Your task to perform on an android device: toggle improve location accuracy Image 0: 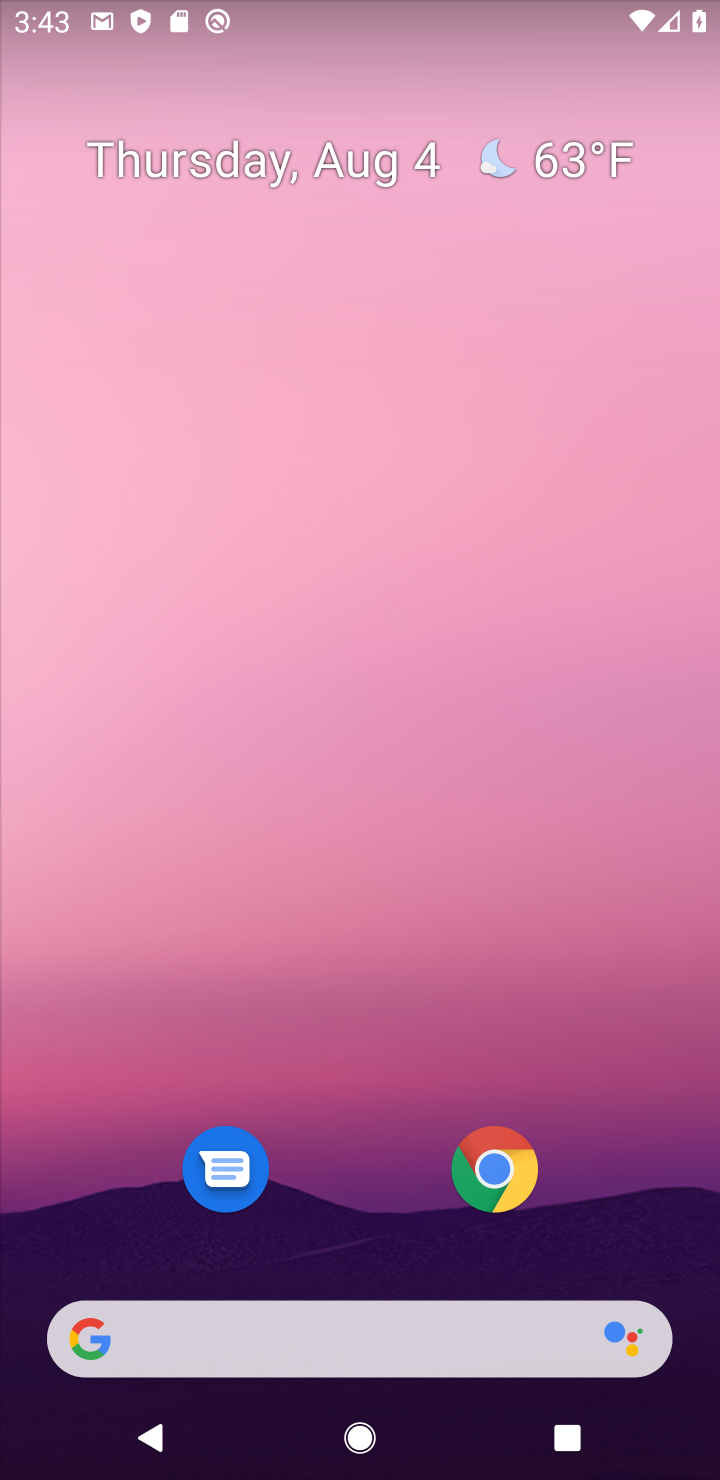
Step 0: drag from (390, 1224) to (491, 293)
Your task to perform on an android device: toggle improve location accuracy Image 1: 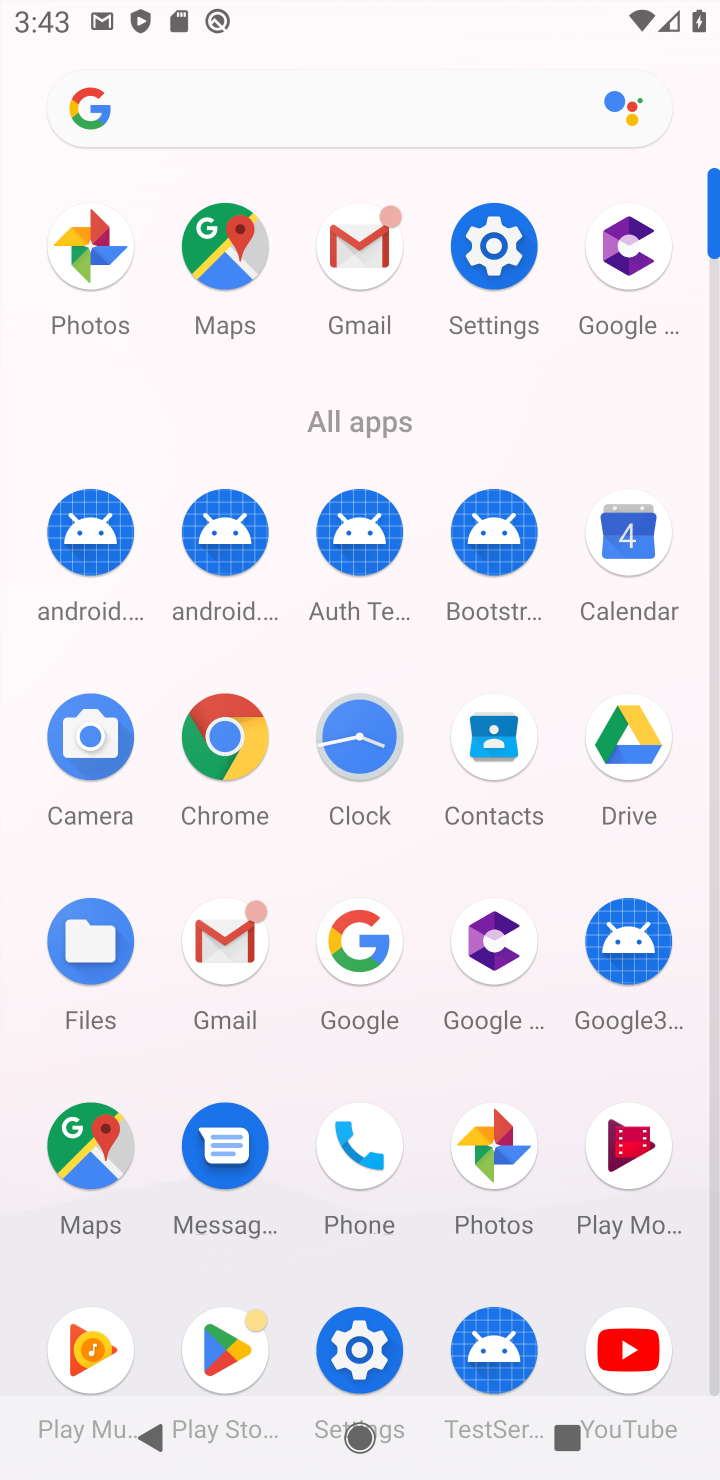
Step 1: click (353, 1356)
Your task to perform on an android device: toggle improve location accuracy Image 2: 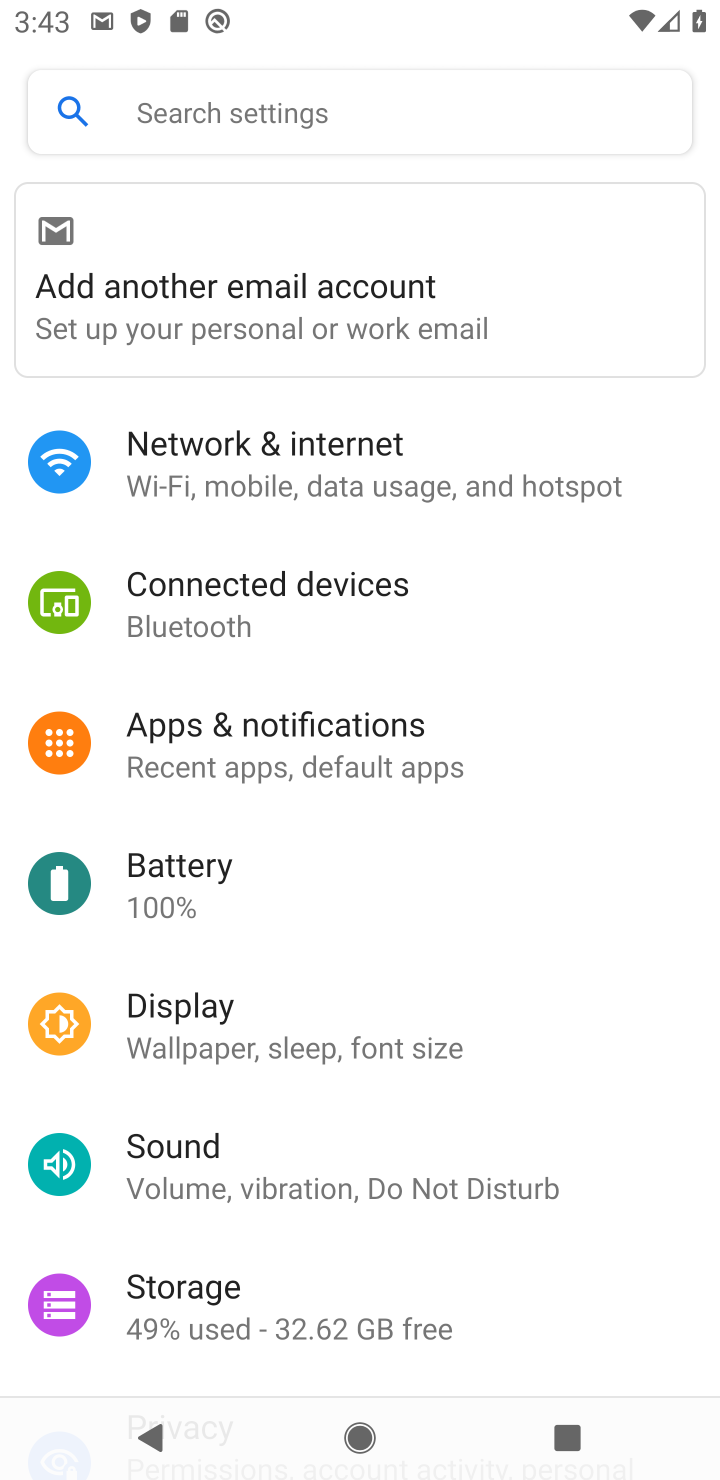
Step 2: drag from (292, 1231) to (360, 638)
Your task to perform on an android device: toggle improve location accuracy Image 3: 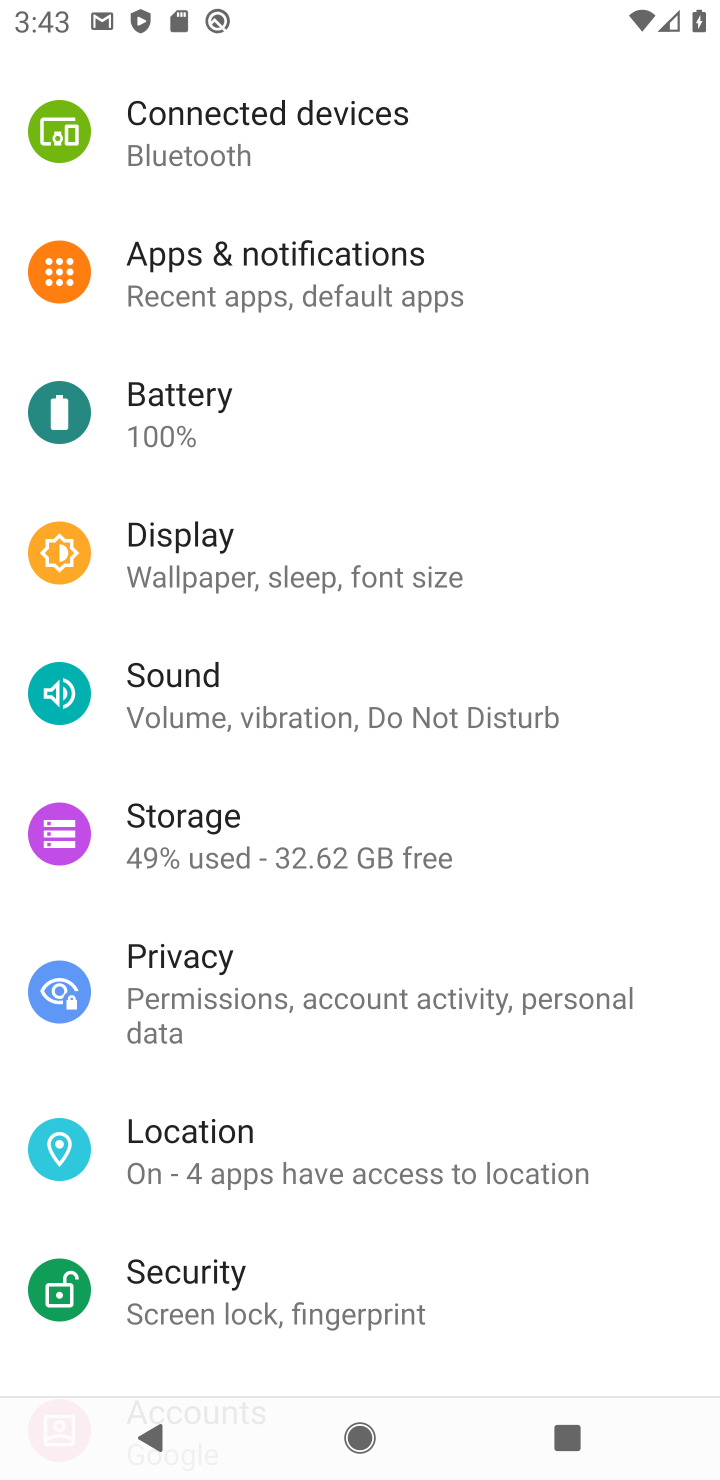
Step 3: click (281, 1157)
Your task to perform on an android device: toggle improve location accuracy Image 4: 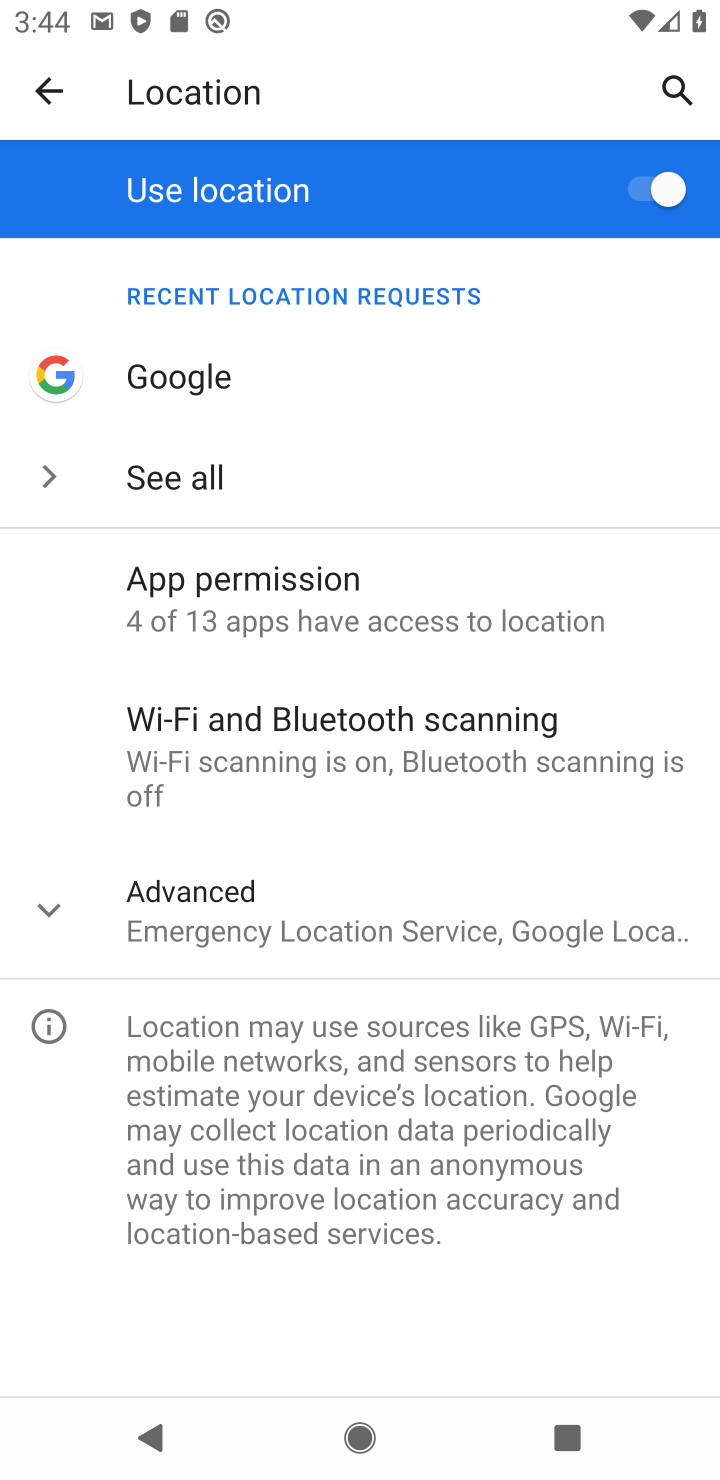
Step 4: click (254, 935)
Your task to perform on an android device: toggle improve location accuracy Image 5: 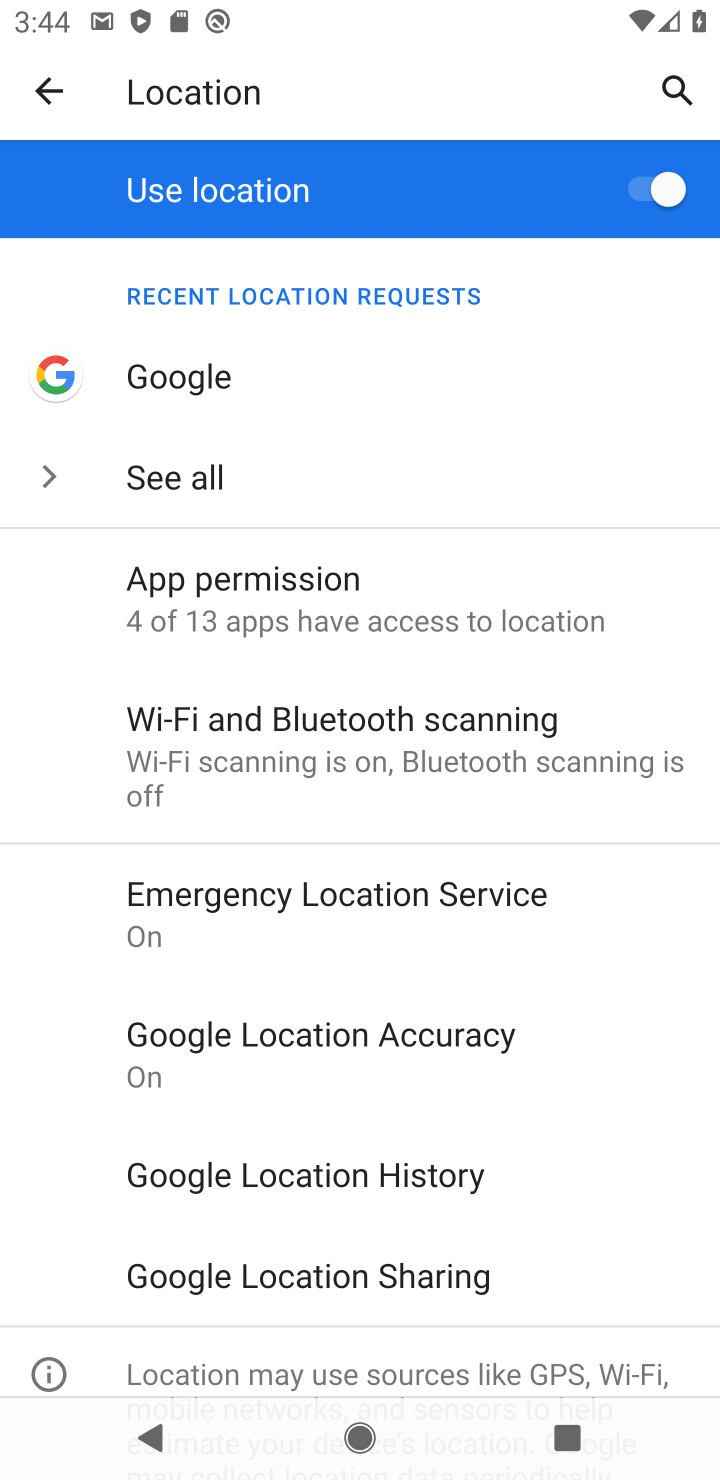
Step 5: click (379, 1039)
Your task to perform on an android device: toggle improve location accuracy Image 6: 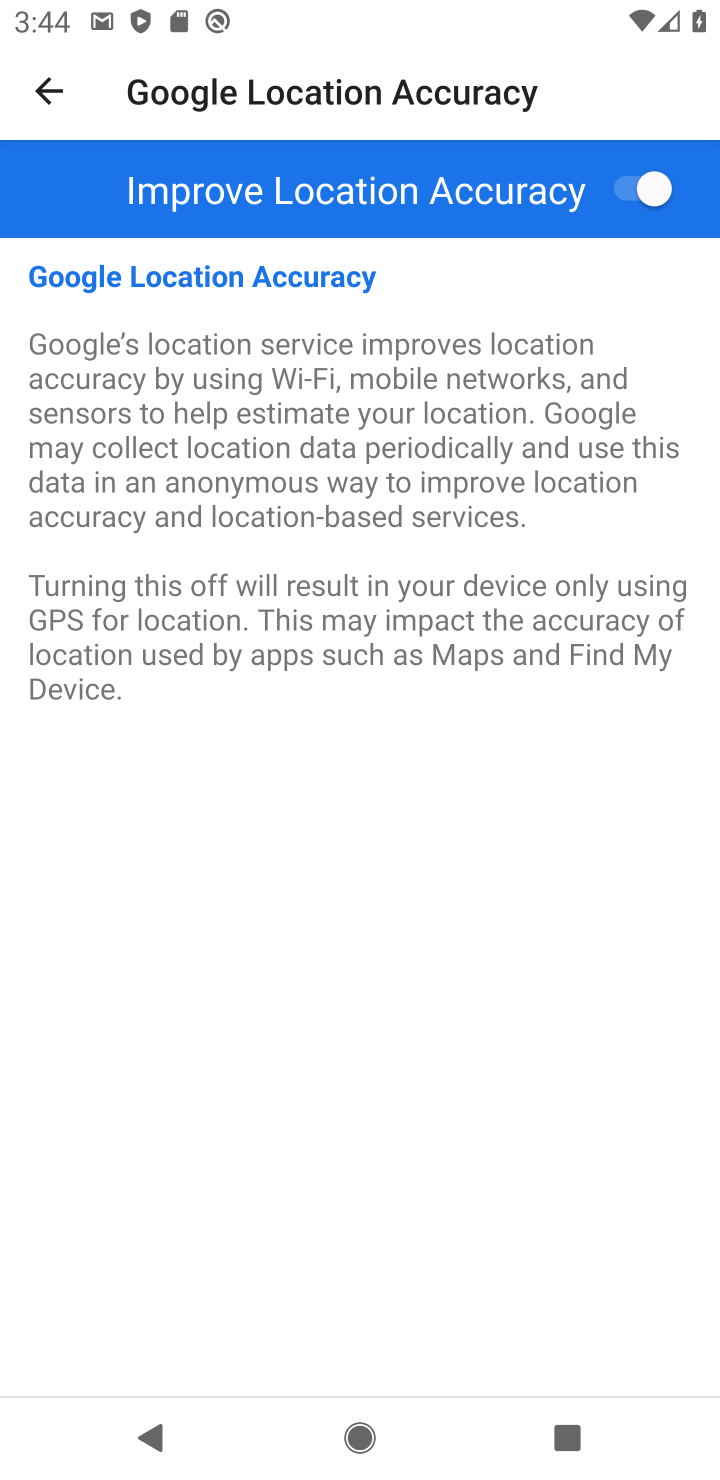
Step 6: click (584, 189)
Your task to perform on an android device: toggle improve location accuracy Image 7: 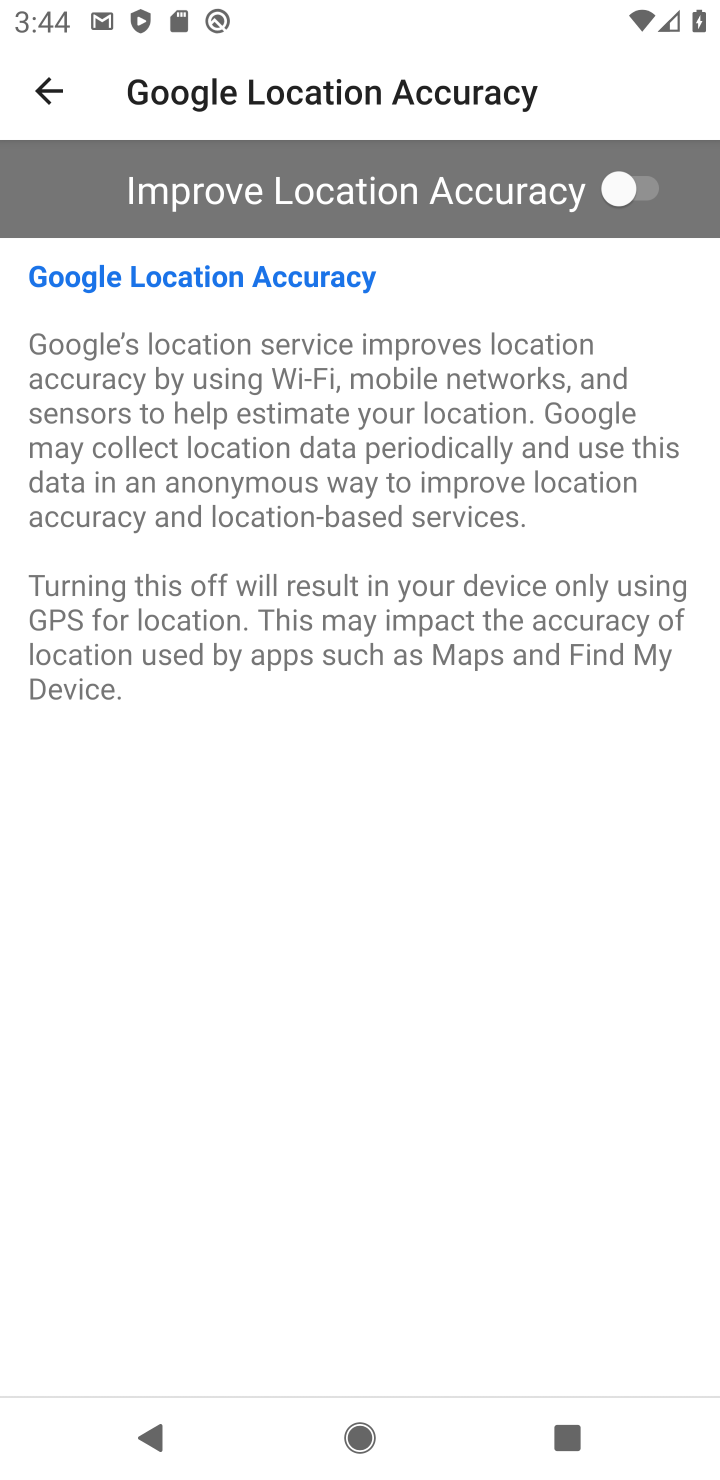
Step 7: task complete